Your task to perform on an android device: change keyboard looks Image 0: 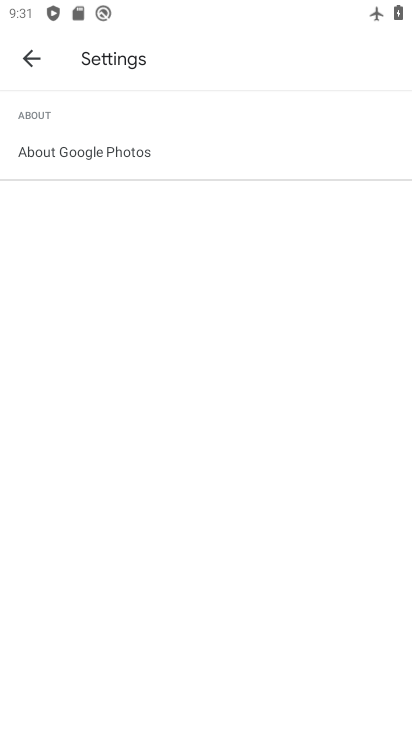
Step 0: press home button
Your task to perform on an android device: change keyboard looks Image 1: 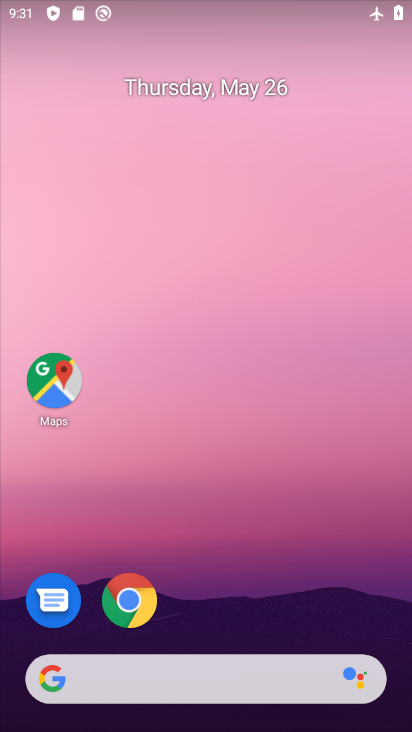
Step 1: drag from (242, 615) to (308, 139)
Your task to perform on an android device: change keyboard looks Image 2: 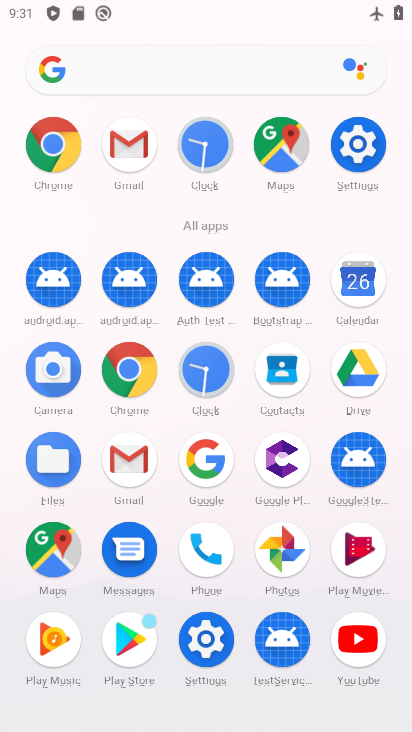
Step 2: click (384, 147)
Your task to perform on an android device: change keyboard looks Image 3: 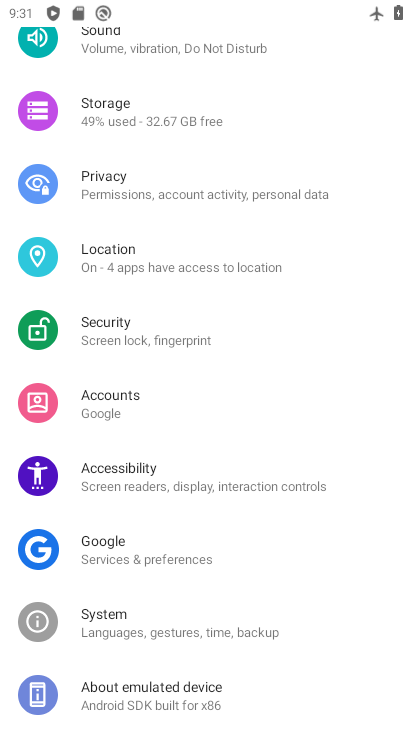
Step 3: click (200, 630)
Your task to perform on an android device: change keyboard looks Image 4: 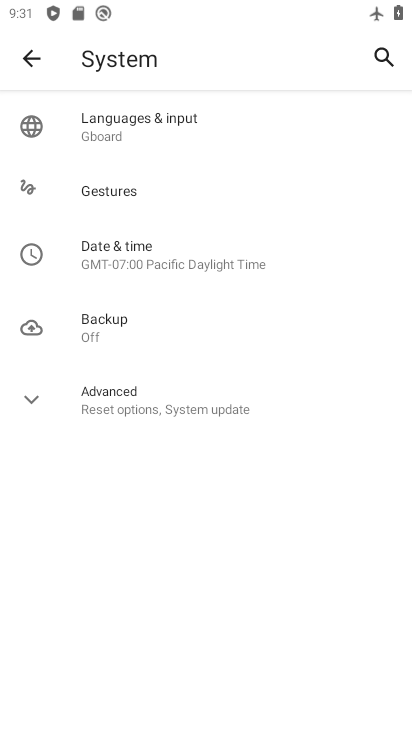
Step 4: click (195, 118)
Your task to perform on an android device: change keyboard looks Image 5: 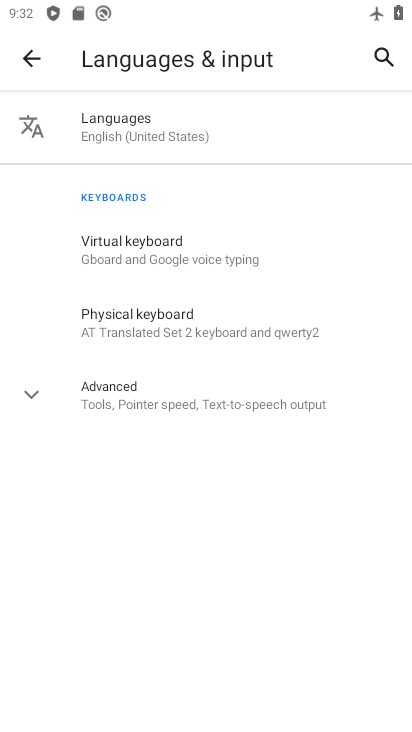
Step 5: click (147, 238)
Your task to perform on an android device: change keyboard looks Image 6: 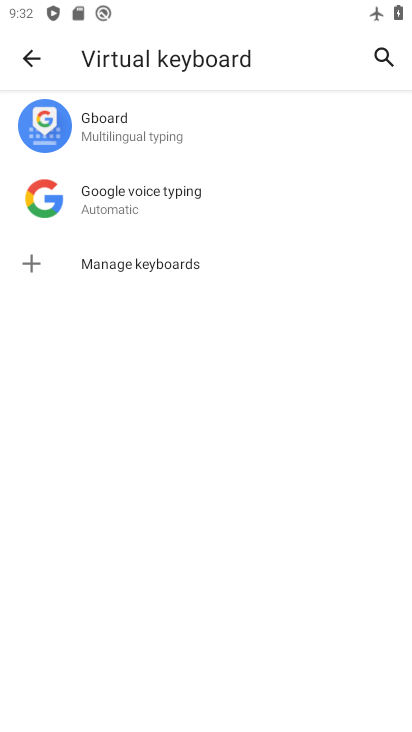
Step 6: click (138, 143)
Your task to perform on an android device: change keyboard looks Image 7: 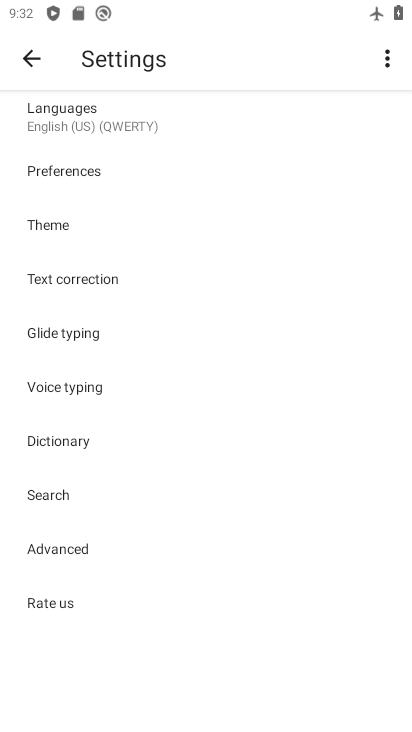
Step 7: click (66, 213)
Your task to perform on an android device: change keyboard looks Image 8: 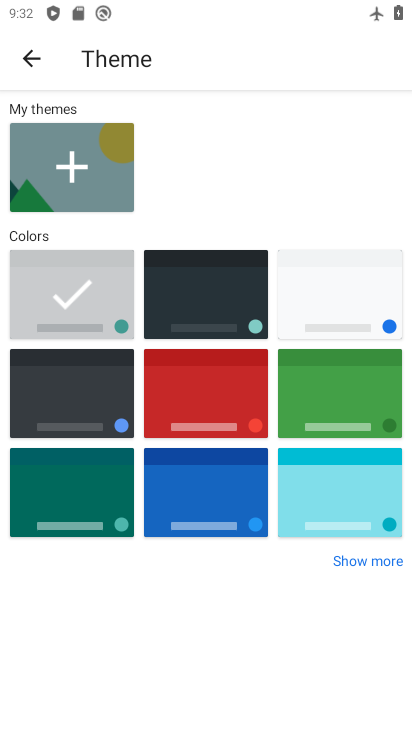
Step 8: click (320, 312)
Your task to perform on an android device: change keyboard looks Image 9: 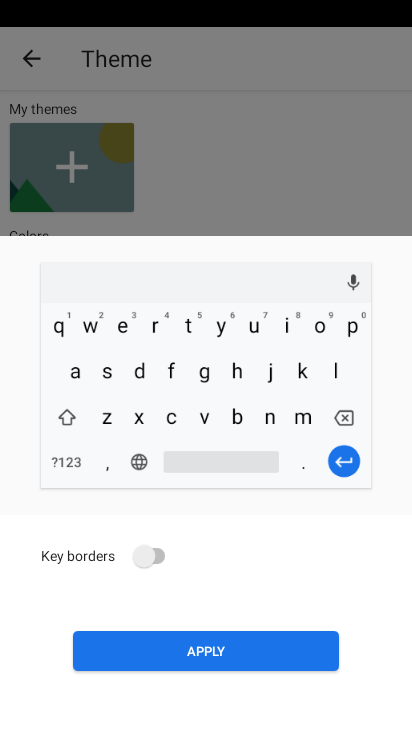
Step 9: click (214, 641)
Your task to perform on an android device: change keyboard looks Image 10: 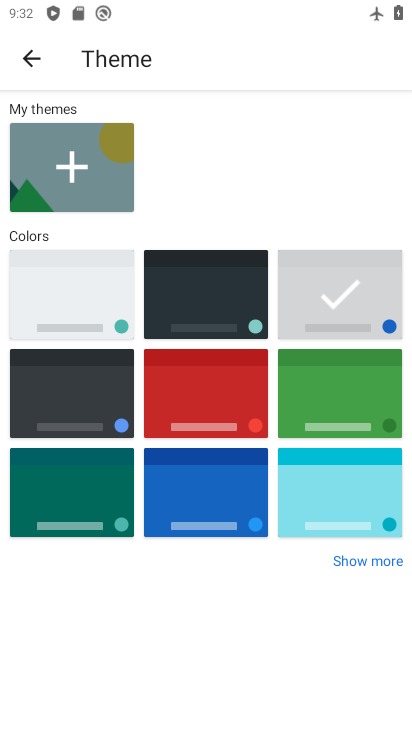
Step 10: task complete